Your task to perform on an android device: Search for Italian restaurants on Maps Image 0: 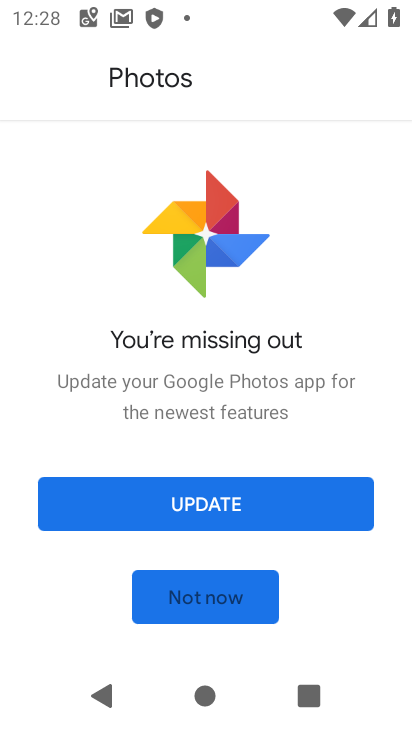
Step 0: press back button
Your task to perform on an android device: Search for Italian restaurants on Maps Image 1: 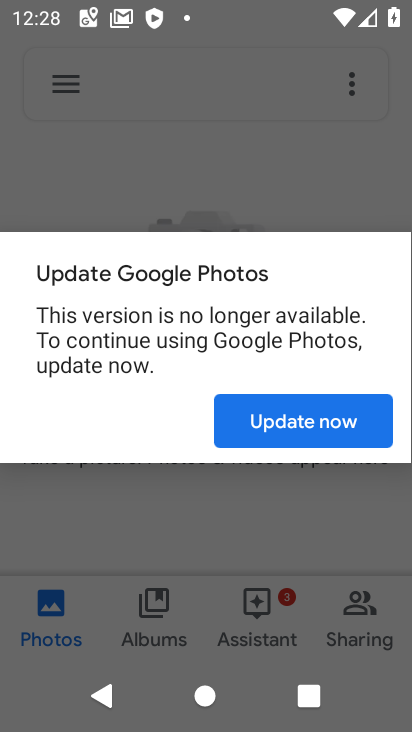
Step 1: press home button
Your task to perform on an android device: Search for Italian restaurants on Maps Image 2: 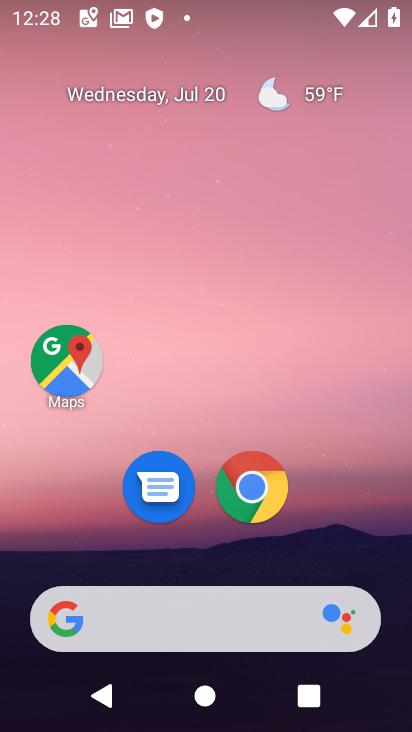
Step 2: click (83, 369)
Your task to perform on an android device: Search for Italian restaurants on Maps Image 3: 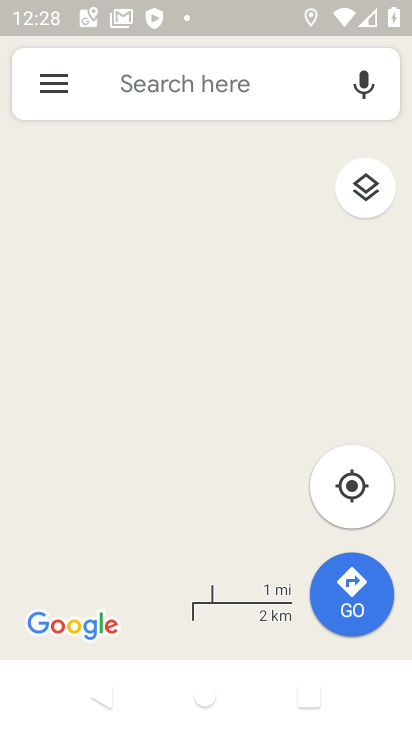
Step 3: click (149, 81)
Your task to perform on an android device: Search for Italian restaurants on Maps Image 4: 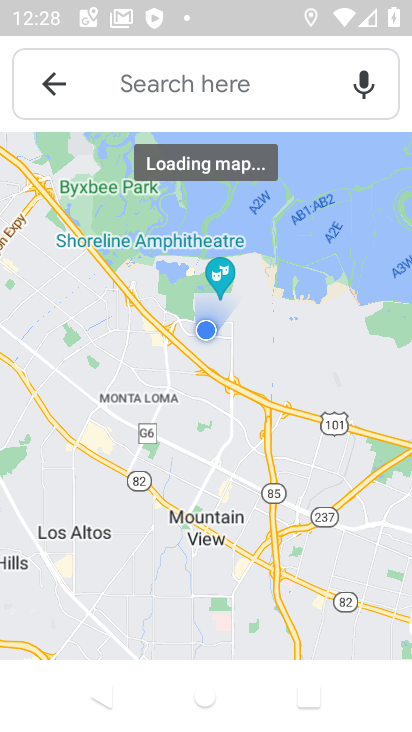
Step 4: click (156, 88)
Your task to perform on an android device: Search for Italian restaurants on Maps Image 5: 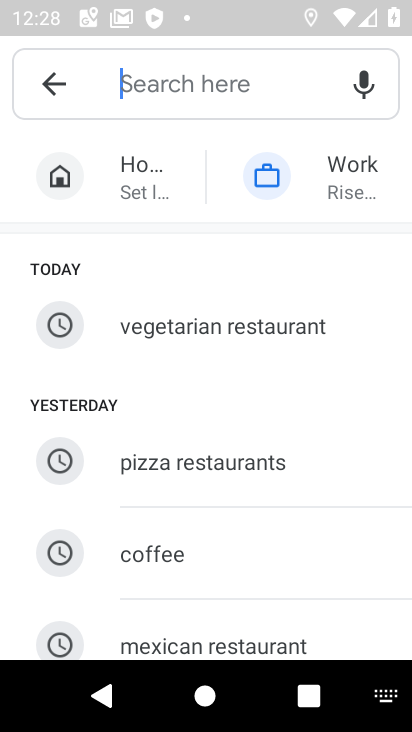
Step 5: drag from (214, 611) to (279, 153)
Your task to perform on an android device: Search for Italian restaurants on Maps Image 6: 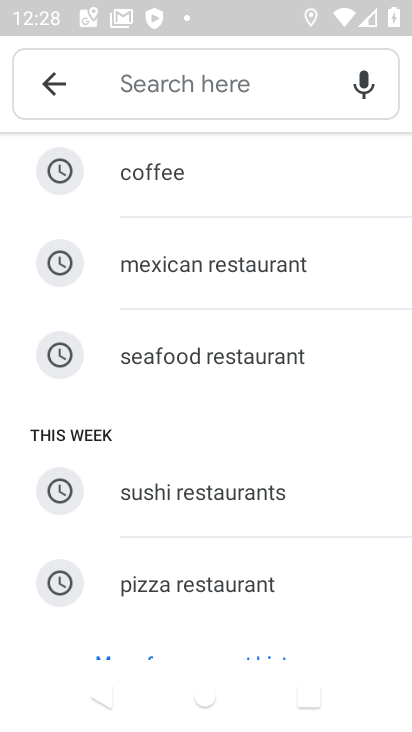
Step 6: drag from (163, 590) to (205, 345)
Your task to perform on an android device: Search for Italian restaurants on Maps Image 7: 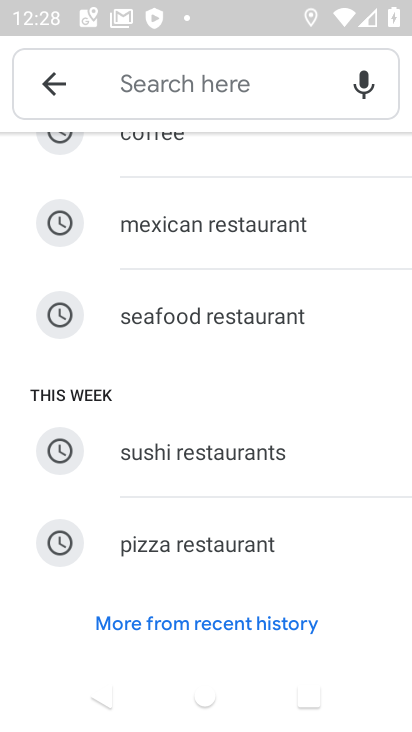
Step 7: drag from (191, 257) to (198, 717)
Your task to perform on an android device: Search for Italian restaurants on Maps Image 8: 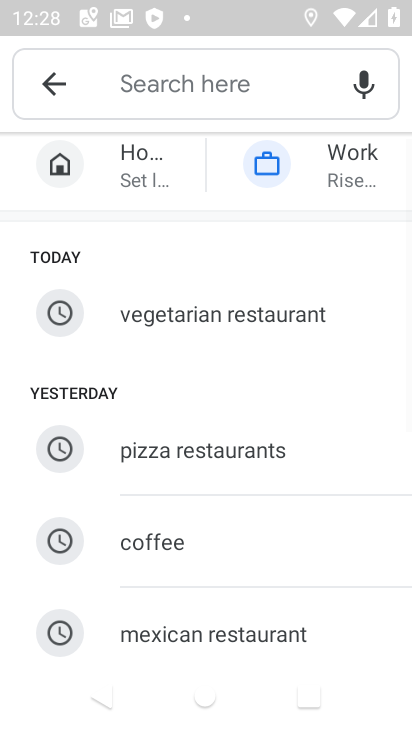
Step 8: click (156, 84)
Your task to perform on an android device: Search for Italian restaurants on Maps Image 9: 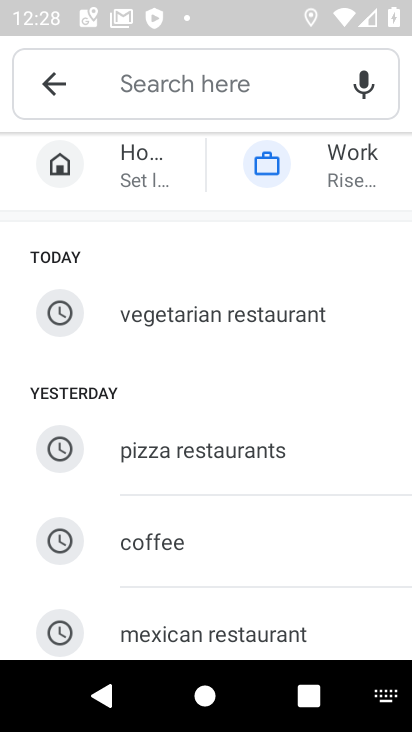
Step 9: type "italian restaurants"
Your task to perform on an android device: Search for Italian restaurants on Maps Image 10: 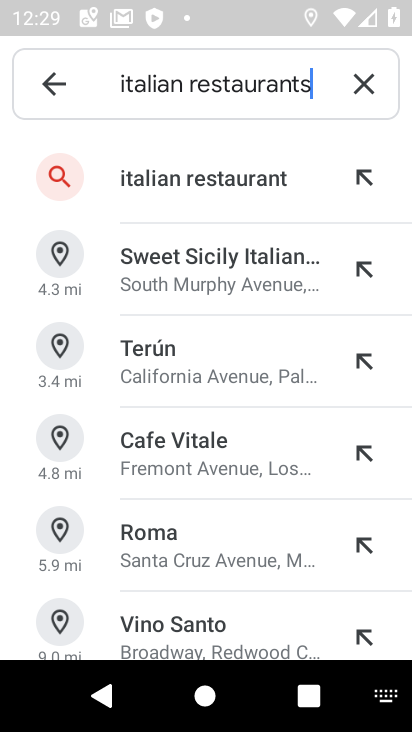
Step 10: click (163, 169)
Your task to perform on an android device: Search for Italian restaurants on Maps Image 11: 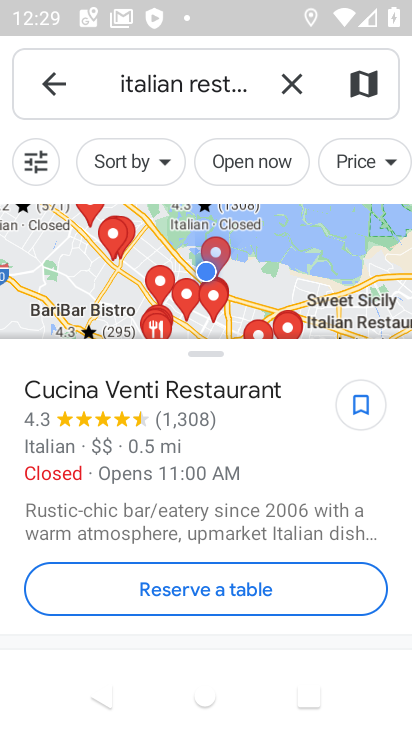
Step 11: task complete